Your task to perform on an android device: Show me the alarms in the clock app Image 0: 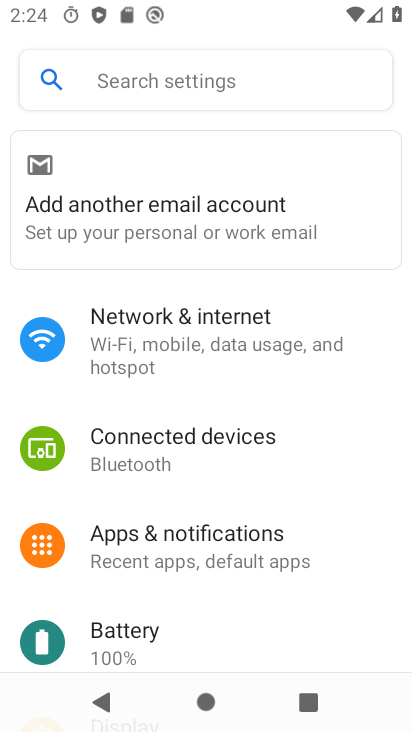
Step 0: press home button
Your task to perform on an android device: Show me the alarms in the clock app Image 1: 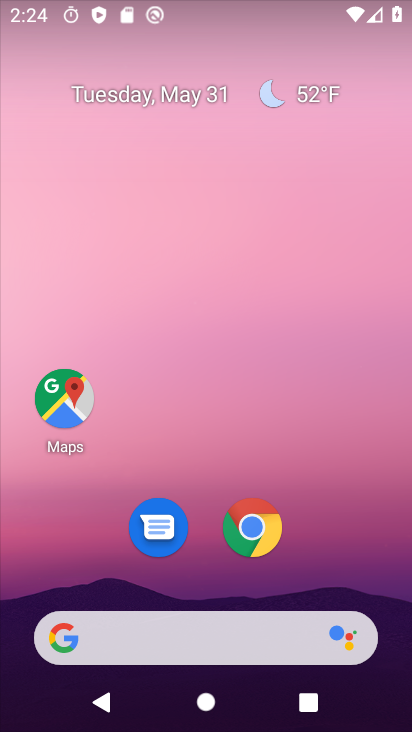
Step 1: drag from (93, 600) to (191, 89)
Your task to perform on an android device: Show me the alarms in the clock app Image 2: 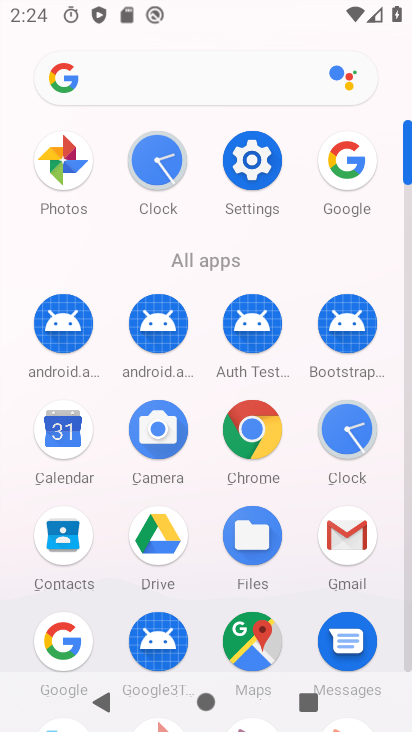
Step 2: click (351, 437)
Your task to perform on an android device: Show me the alarms in the clock app Image 3: 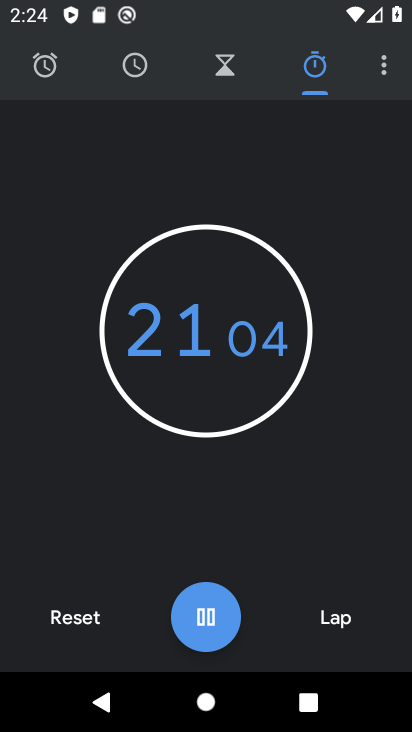
Step 3: click (40, 70)
Your task to perform on an android device: Show me the alarms in the clock app Image 4: 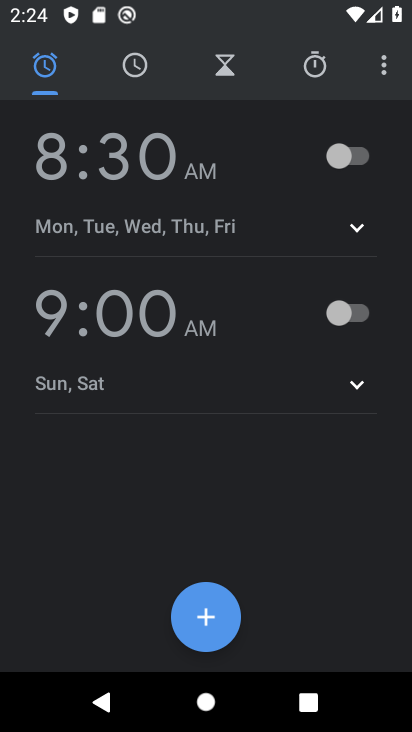
Step 4: task complete